Your task to perform on an android device: Open the calendar and show me this week's events? Image 0: 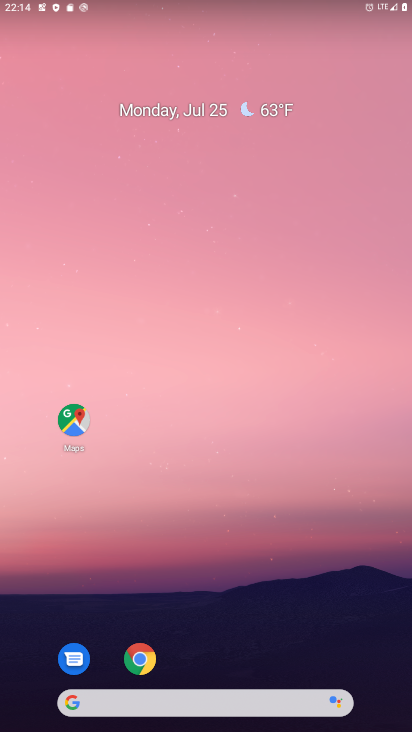
Step 0: drag from (204, 706) to (152, 56)
Your task to perform on an android device: Open the calendar and show me this week's events? Image 1: 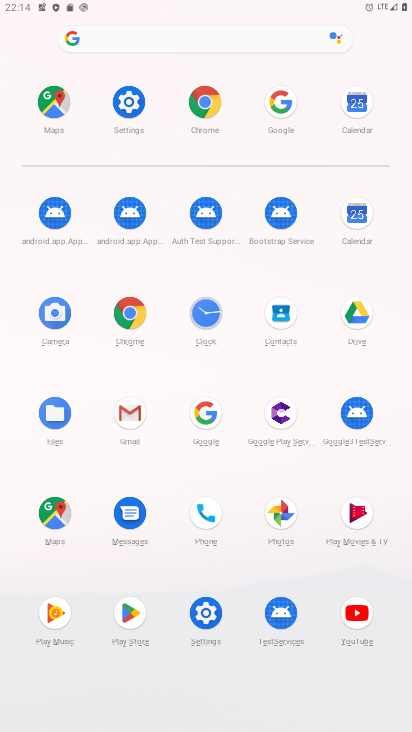
Step 1: click (353, 211)
Your task to perform on an android device: Open the calendar and show me this week's events? Image 2: 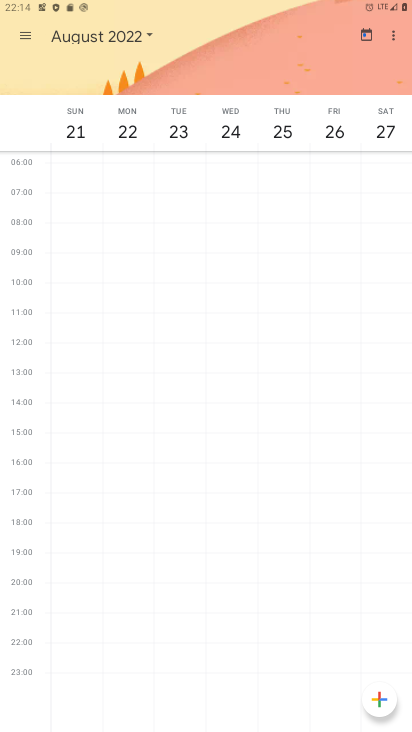
Step 2: click (145, 36)
Your task to perform on an android device: Open the calendar and show me this week's events? Image 3: 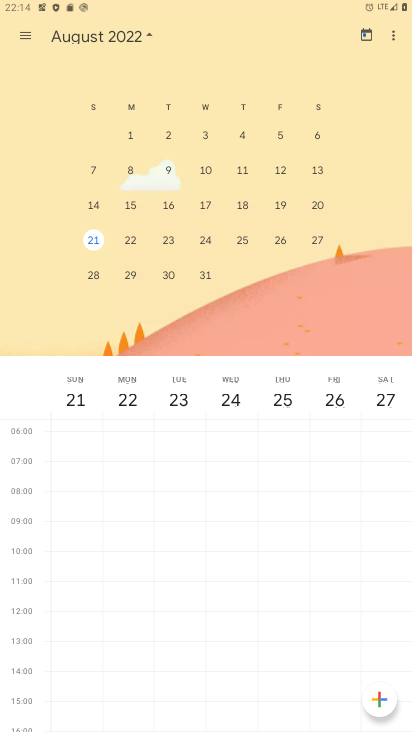
Step 3: drag from (111, 220) to (352, 221)
Your task to perform on an android device: Open the calendar and show me this week's events? Image 4: 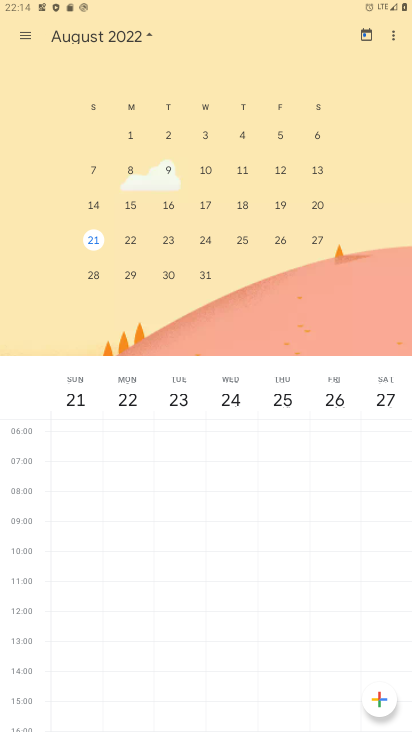
Step 4: drag from (69, 203) to (386, 195)
Your task to perform on an android device: Open the calendar and show me this week's events? Image 5: 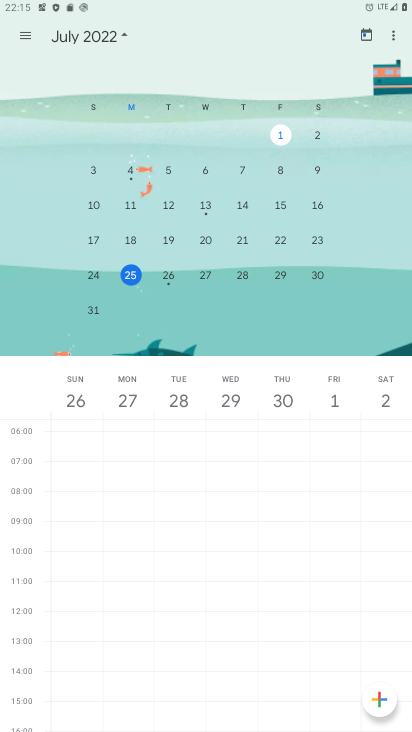
Step 5: click (23, 33)
Your task to perform on an android device: Open the calendar and show me this week's events? Image 6: 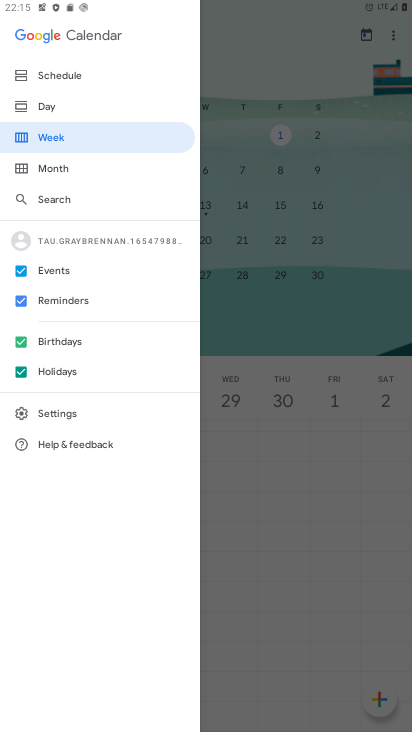
Step 6: click (20, 369)
Your task to perform on an android device: Open the calendar and show me this week's events? Image 7: 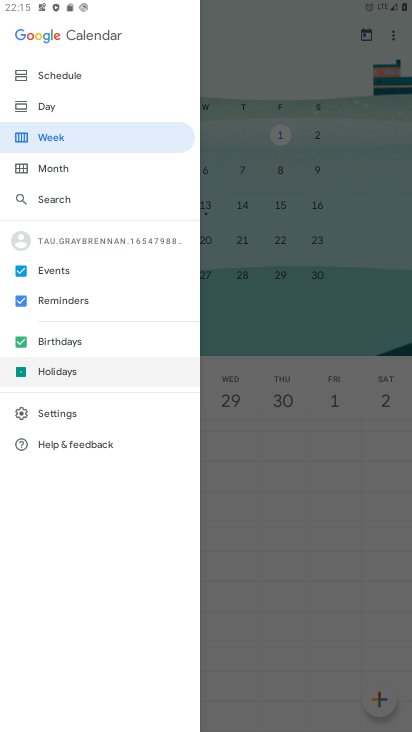
Step 7: click (18, 345)
Your task to perform on an android device: Open the calendar and show me this week's events? Image 8: 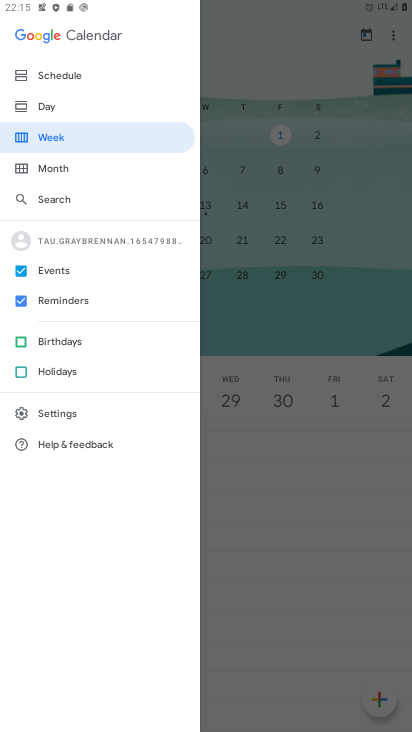
Step 8: click (19, 298)
Your task to perform on an android device: Open the calendar and show me this week's events? Image 9: 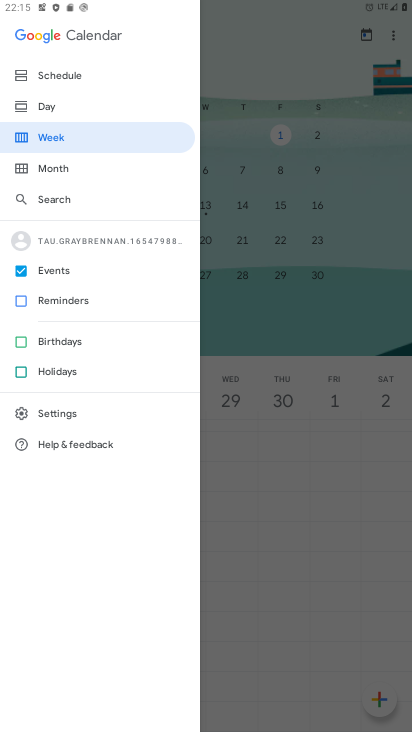
Step 9: click (70, 132)
Your task to perform on an android device: Open the calendar and show me this week's events? Image 10: 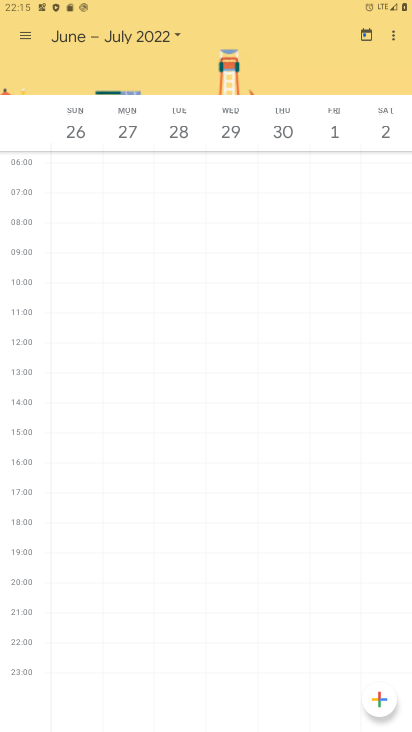
Step 10: task complete